Your task to perform on an android device: manage bookmarks in the chrome app Image 0: 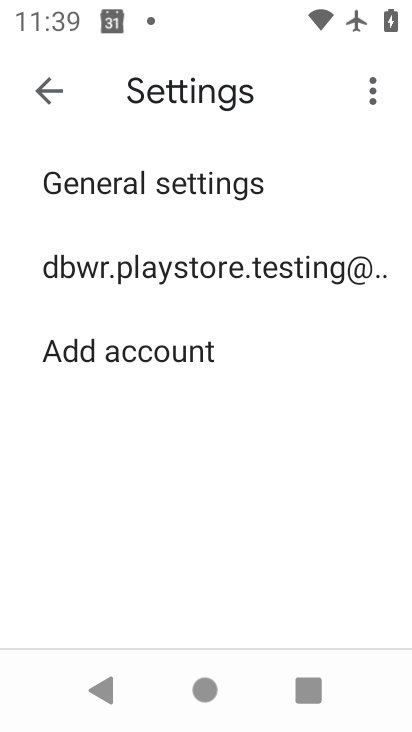
Step 0: press home button
Your task to perform on an android device: manage bookmarks in the chrome app Image 1: 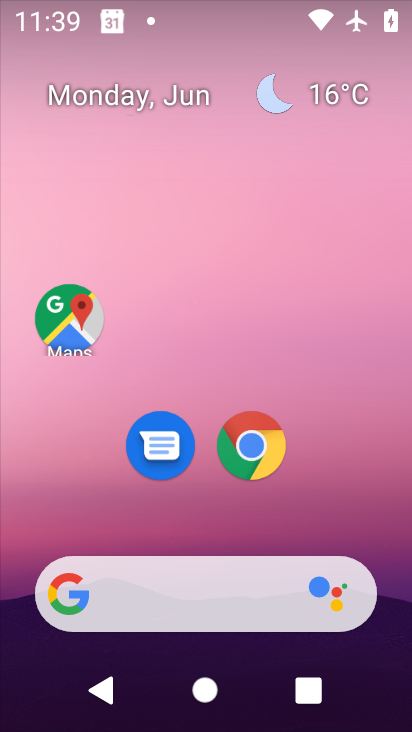
Step 1: click (256, 465)
Your task to perform on an android device: manage bookmarks in the chrome app Image 2: 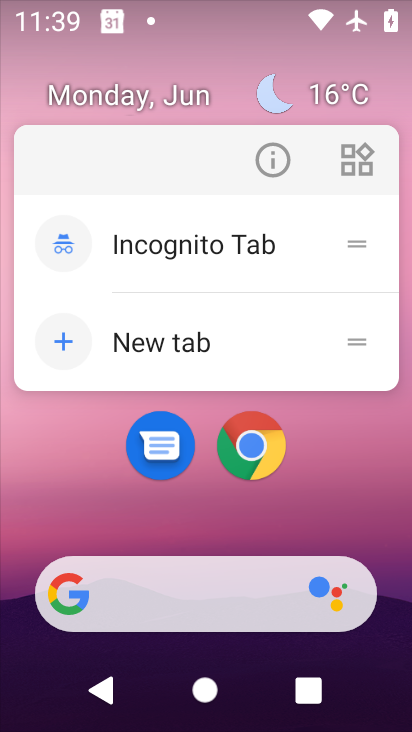
Step 2: click (256, 465)
Your task to perform on an android device: manage bookmarks in the chrome app Image 3: 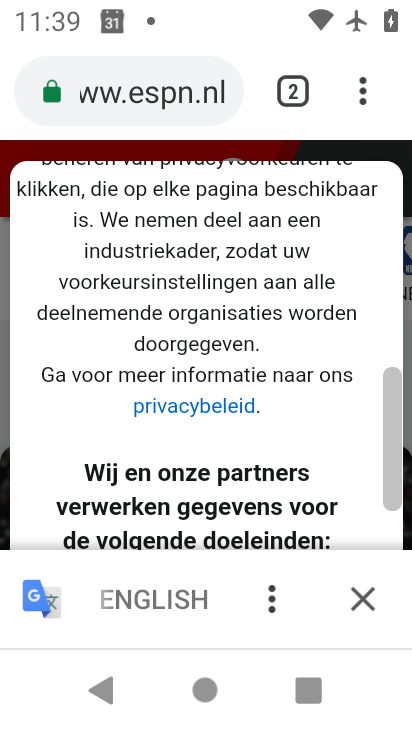
Step 3: task complete